Your task to perform on an android device: Clear all items from cart on target.com. Add asus zenbook to the cart on target.com Image 0: 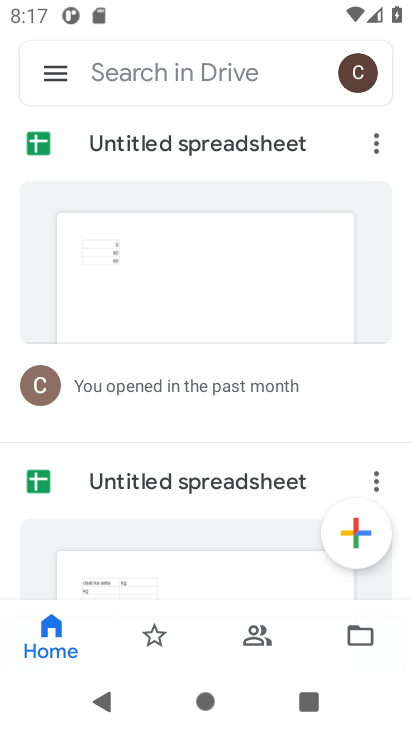
Step 0: press home button
Your task to perform on an android device: Clear all items from cart on target.com. Add asus zenbook to the cart on target.com Image 1: 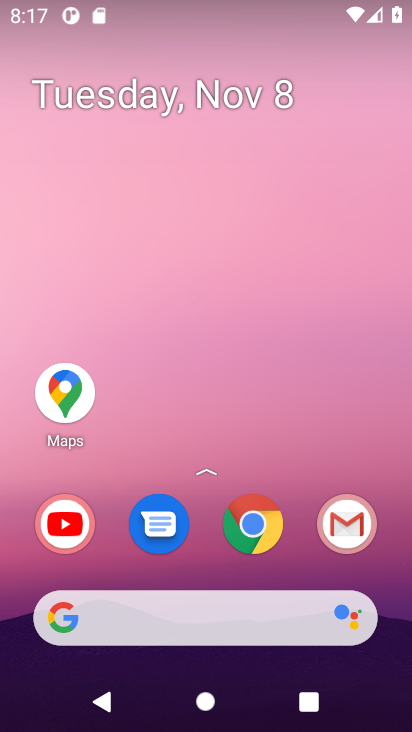
Step 1: click (251, 540)
Your task to perform on an android device: Clear all items from cart on target.com. Add asus zenbook to the cart on target.com Image 2: 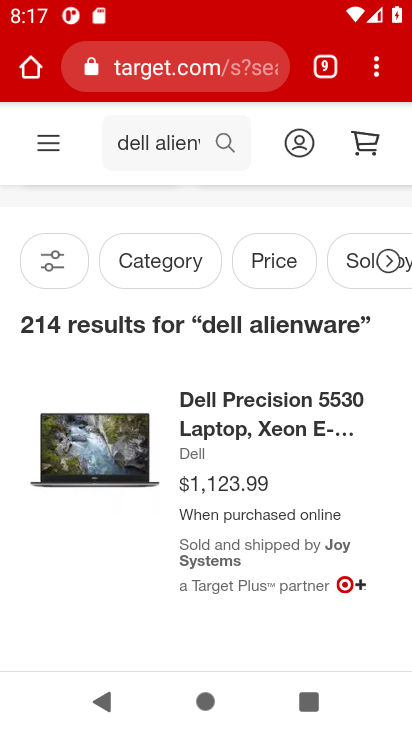
Step 2: click (362, 144)
Your task to perform on an android device: Clear all items from cart on target.com. Add asus zenbook to the cart on target.com Image 3: 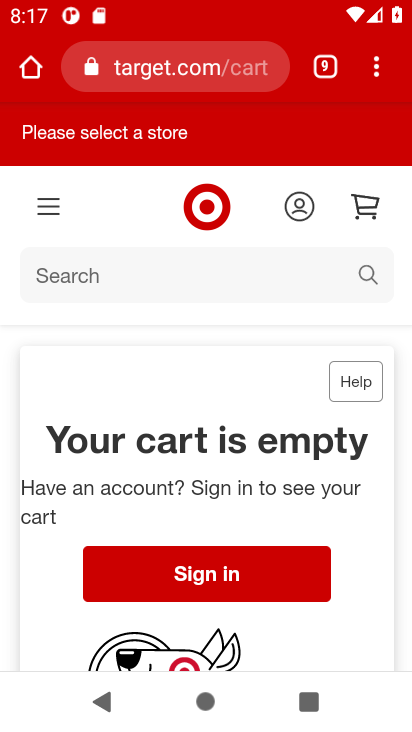
Step 3: click (368, 282)
Your task to perform on an android device: Clear all items from cart on target.com. Add asus zenbook to the cart on target.com Image 4: 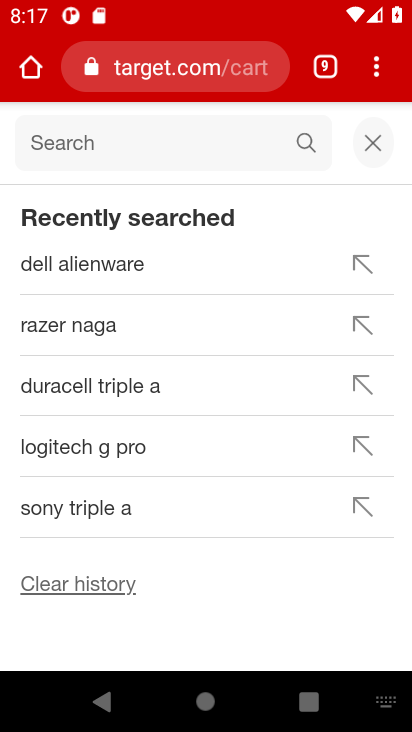
Step 4: type "asus zenbook"
Your task to perform on an android device: Clear all items from cart on target.com. Add asus zenbook to the cart on target.com Image 5: 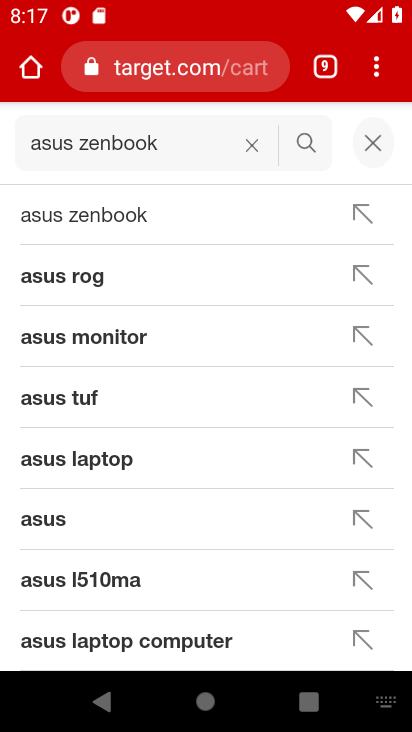
Step 5: click (129, 211)
Your task to perform on an android device: Clear all items from cart on target.com. Add asus zenbook to the cart on target.com Image 6: 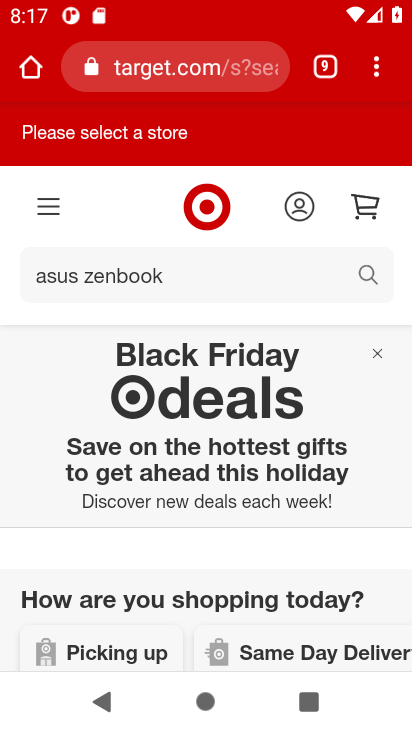
Step 6: drag from (190, 573) to (195, 281)
Your task to perform on an android device: Clear all items from cart on target.com. Add asus zenbook to the cart on target.com Image 7: 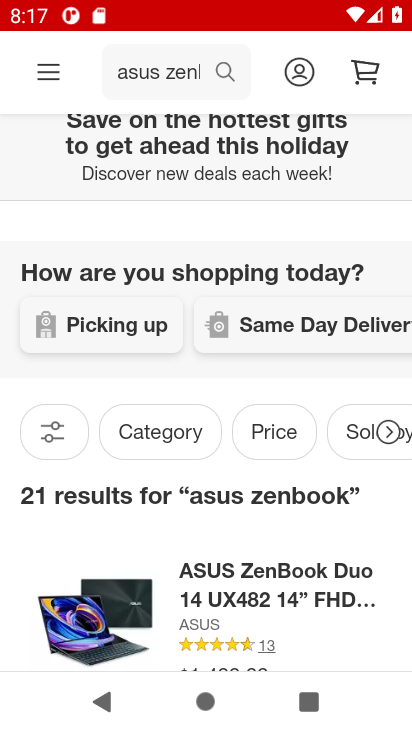
Step 7: drag from (193, 544) to (205, 387)
Your task to perform on an android device: Clear all items from cart on target.com. Add asus zenbook to the cart on target.com Image 8: 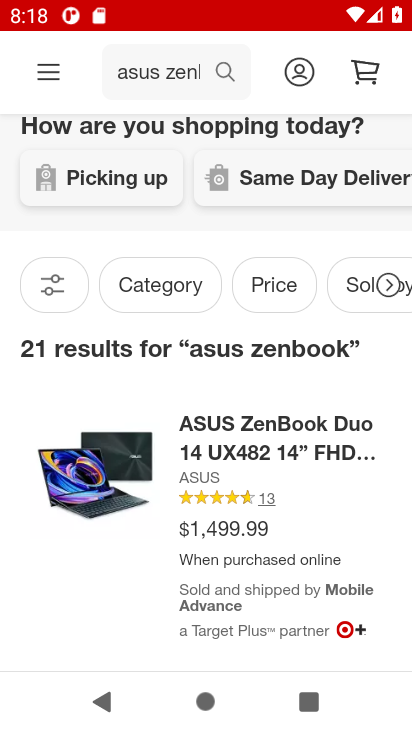
Step 8: drag from (207, 536) to (215, 367)
Your task to perform on an android device: Clear all items from cart on target.com. Add asus zenbook to the cart on target.com Image 9: 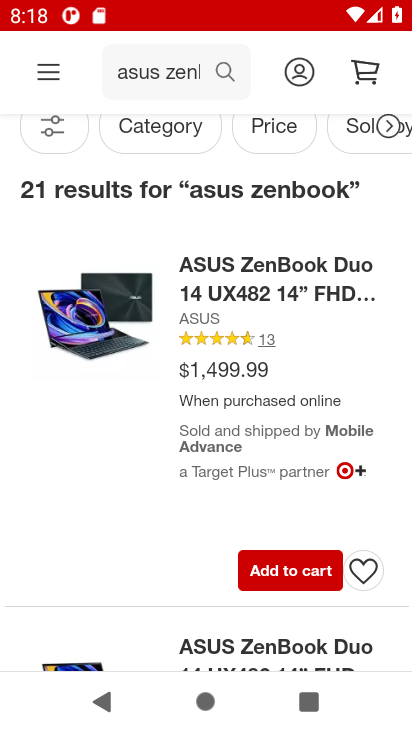
Step 9: click (281, 570)
Your task to perform on an android device: Clear all items from cart on target.com. Add asus zenbook to the cart on target.com Image 10: 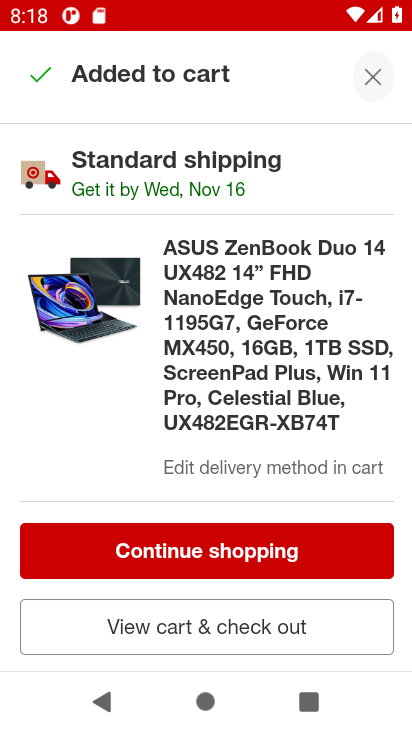
Step 10: click (219, 624)
Your task to perform on an android device: Clear all items from cart on target.com. Add asus zenbook to the cart on target.com Image 11: 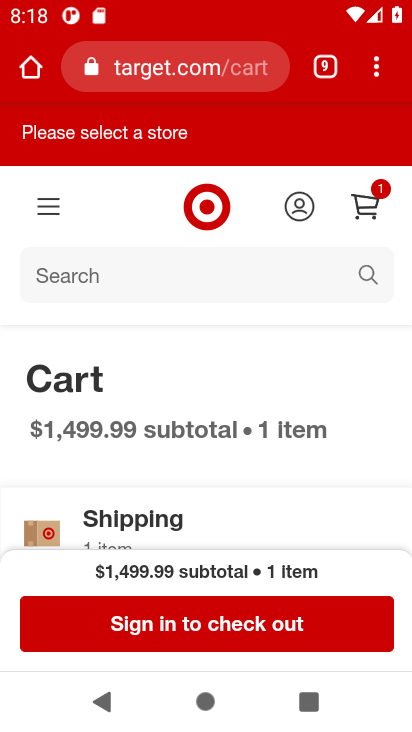
Step 11: task complete